Your task to perform on an android device: Go to notification settings Image 0: 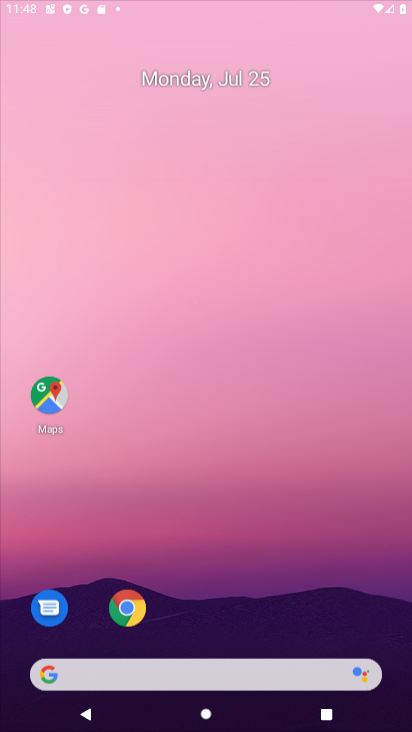
Step 0: click (222, 153)
Your task to perform on an android device: Go to notification settings Image 1: 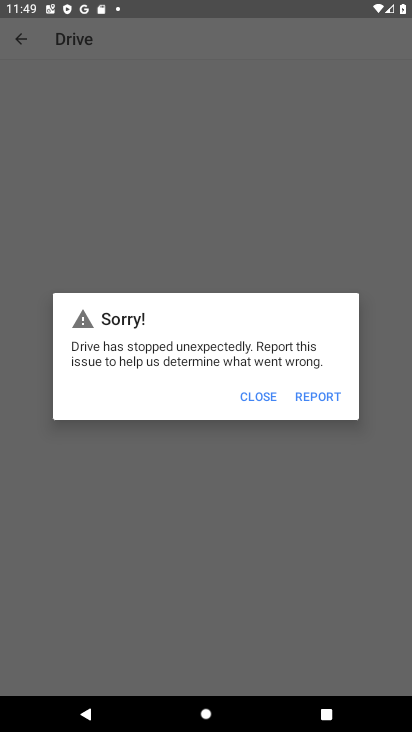
Step 1: press home button
Your task to perform on an android device: Go to notification settings Image 2: 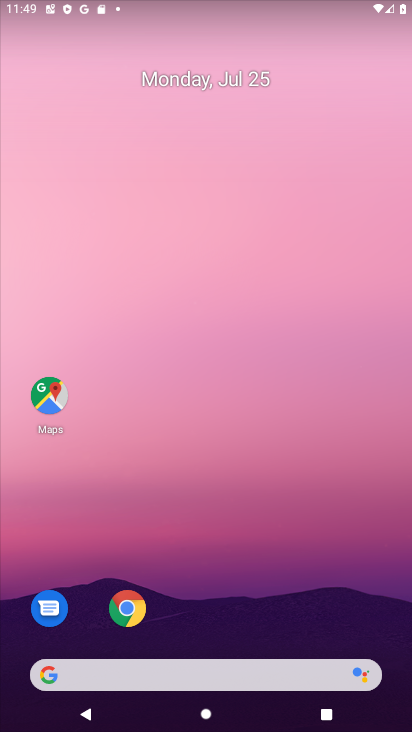
Step 2: drag from (237, 661) to (205, 136)
Your task to perform on an android device: Go to notification settings Image 3: 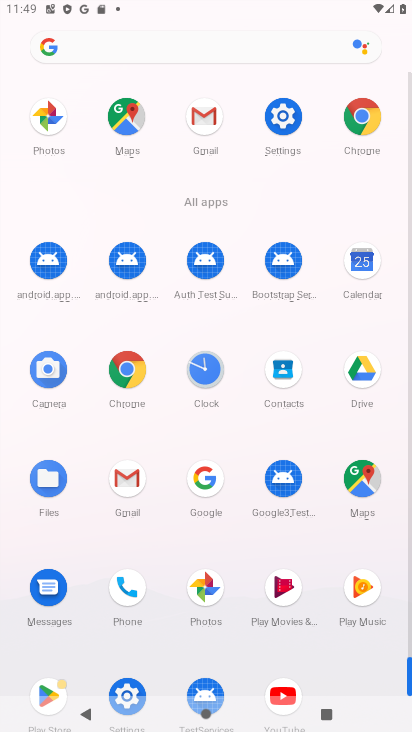
Step 3: click (288, 117)
Your task to perform on an android device: Go to notification settings Image 4: 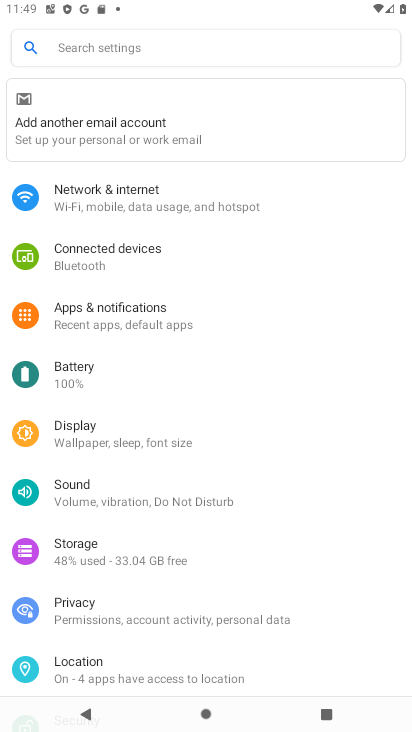
Step 4: click (148, 317)
Your task to perform on an android device: Go to notification settings Image 5: 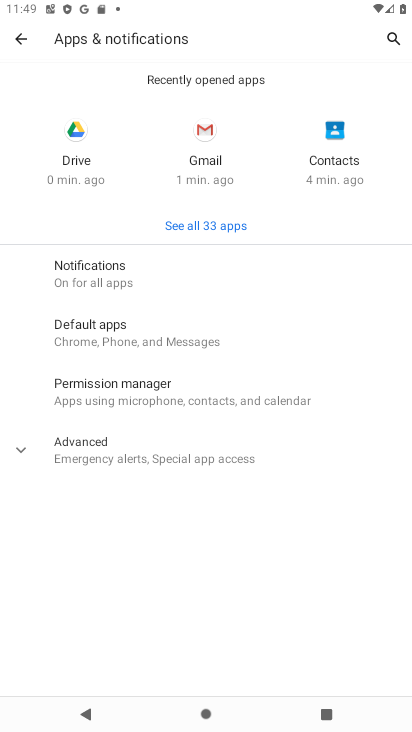
Step 5: click (105, 452)
Your task to perform on an android device: Go to notification settings Image 6: 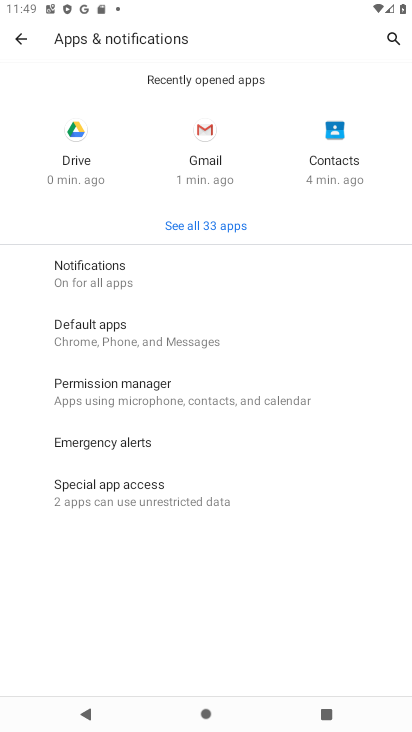
Step 6: click (91, 273)
Your task to perform on an android device: Go to notification settings Image 7: 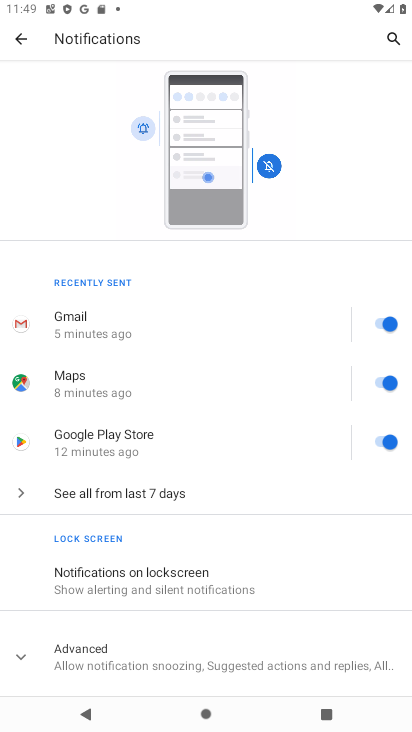
Step 7: drag from (163, 669) to (162, 273)
Your task to perform on an android device: Go to notification settings Image 8: 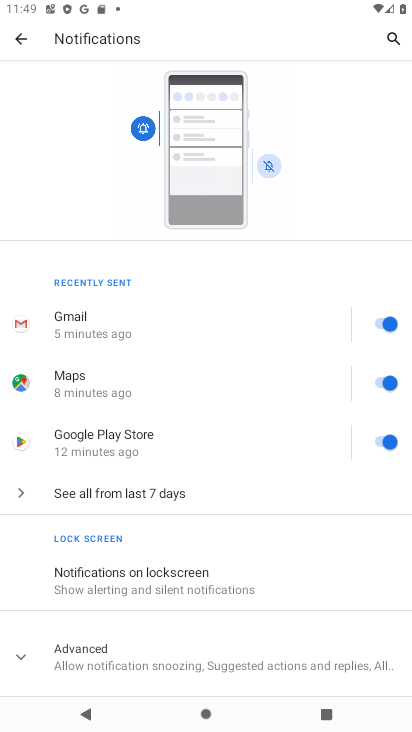
Step 8: click (113, 650)
Your task to perform on an android device: Go to notification settings Image 9: 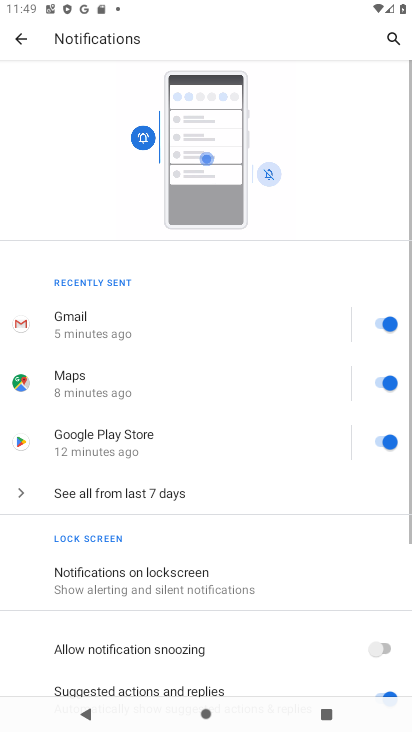
Step 9: task complete